Your task to perform on an android device: snooze an email in the gmail app Image 0: 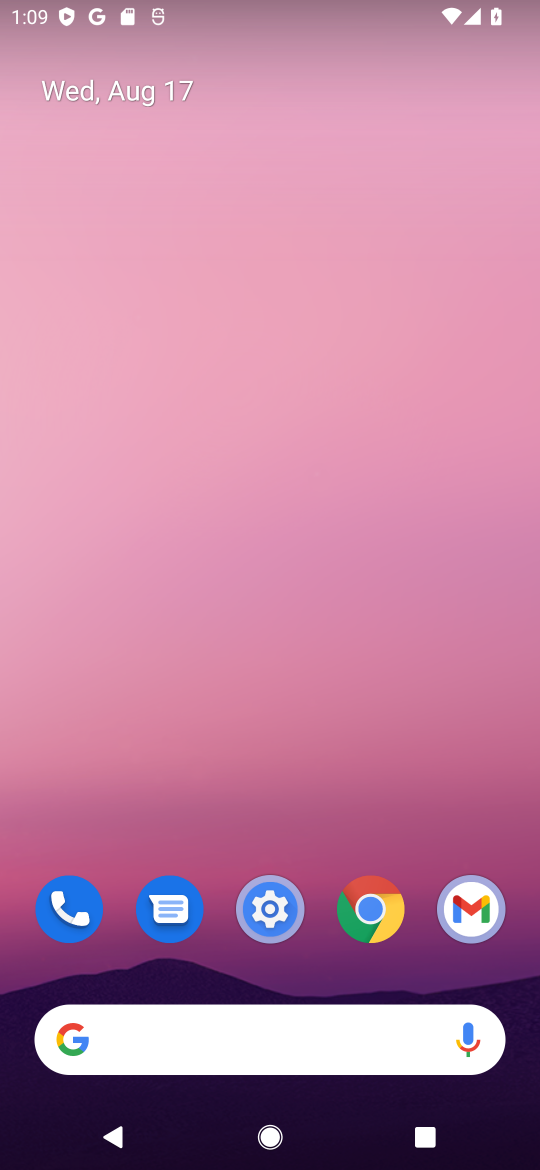
Step 0: click (465, 910)
Your task to perform on an android device: snooze an email in the gmail app Image 1: 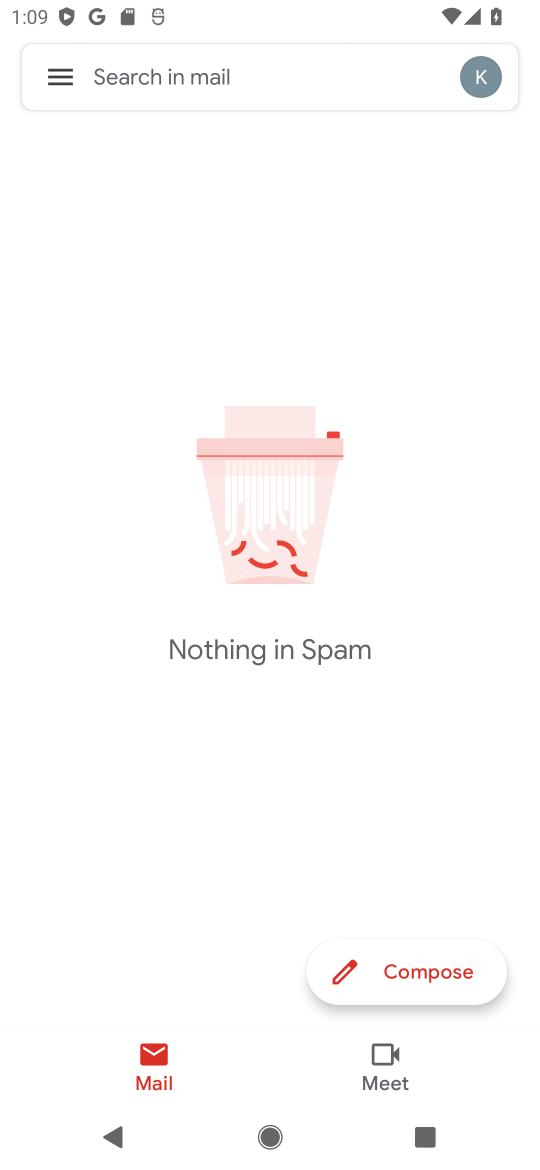
Step 1: click (59, 69)
Your task to perform on an android device: snooze an email in the gmail app Image 2: 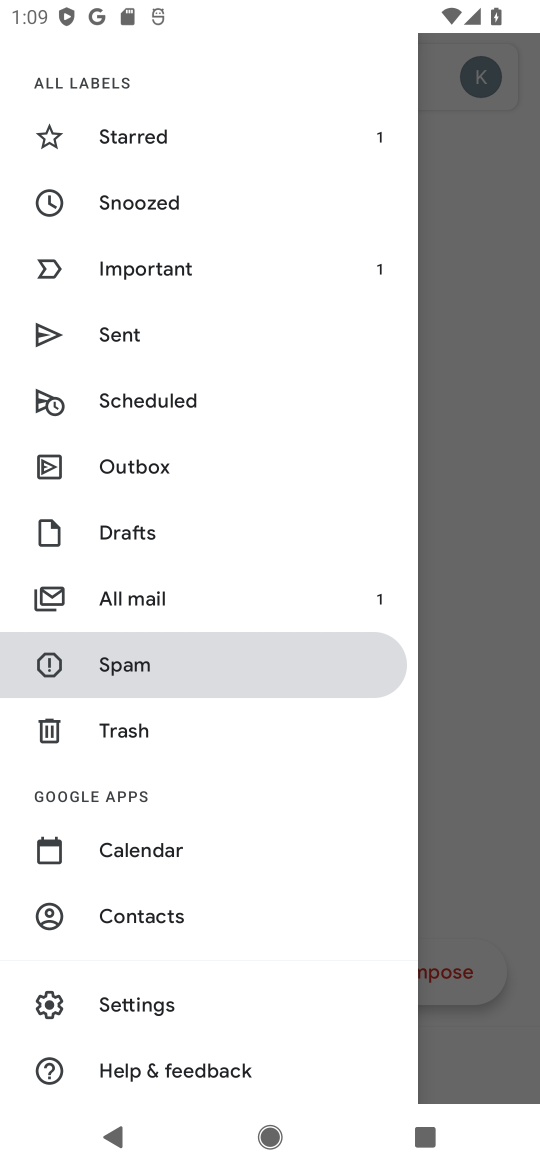
Step 2: click (142, 588)
Your task to perform on an android device: snooze an email in the gmail app Image 3: 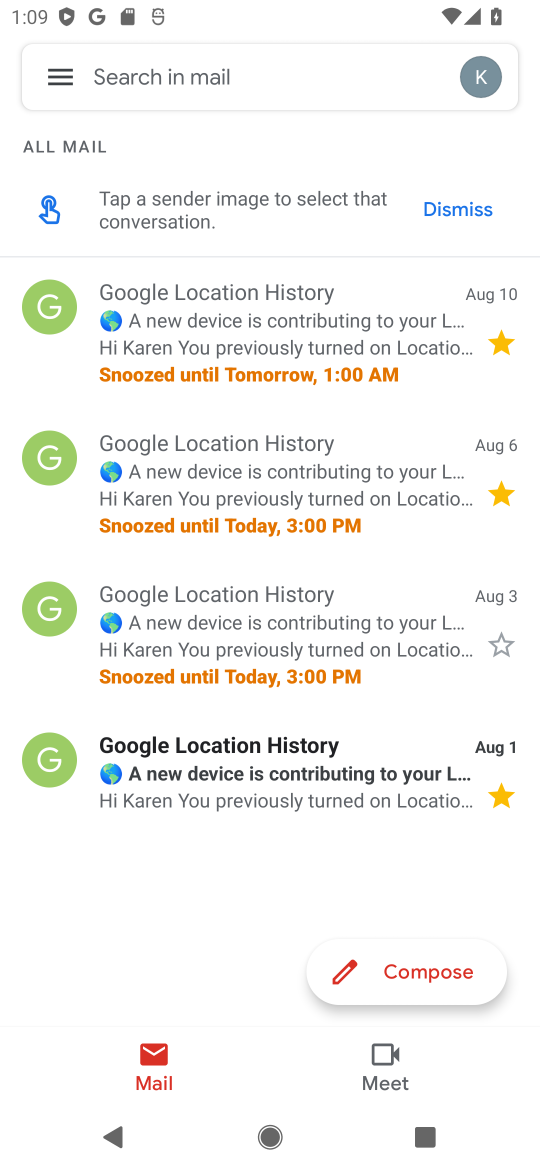
Step 3: click (247, 781)
Your task to perform on an android device: snooze an email in the gmail app Image 4: 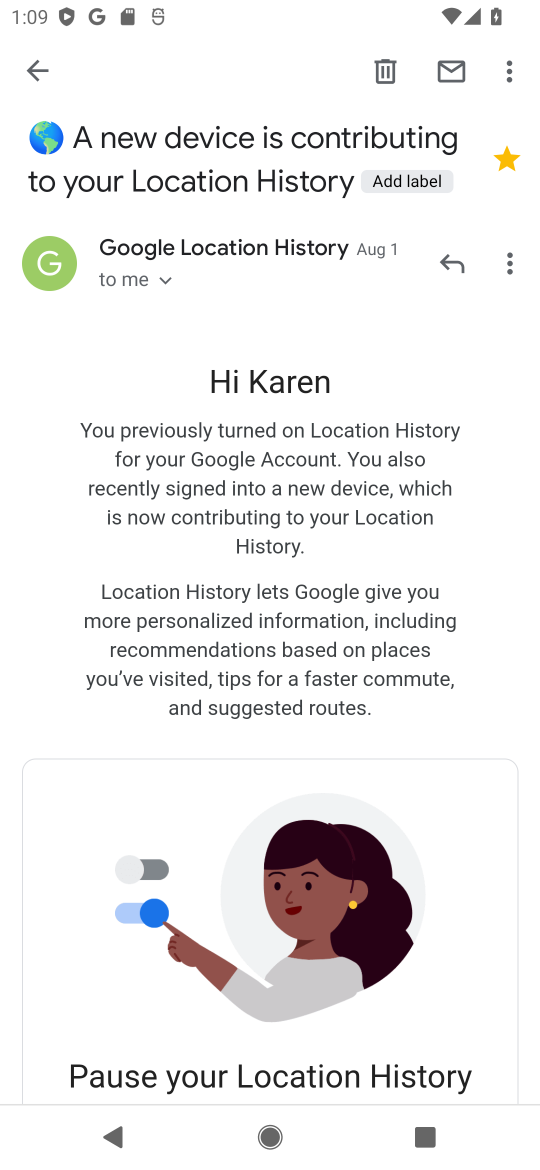
Step 4: click (504, 67)
Your task to perform on an android device: snooze an email in the gmail app Image 5: 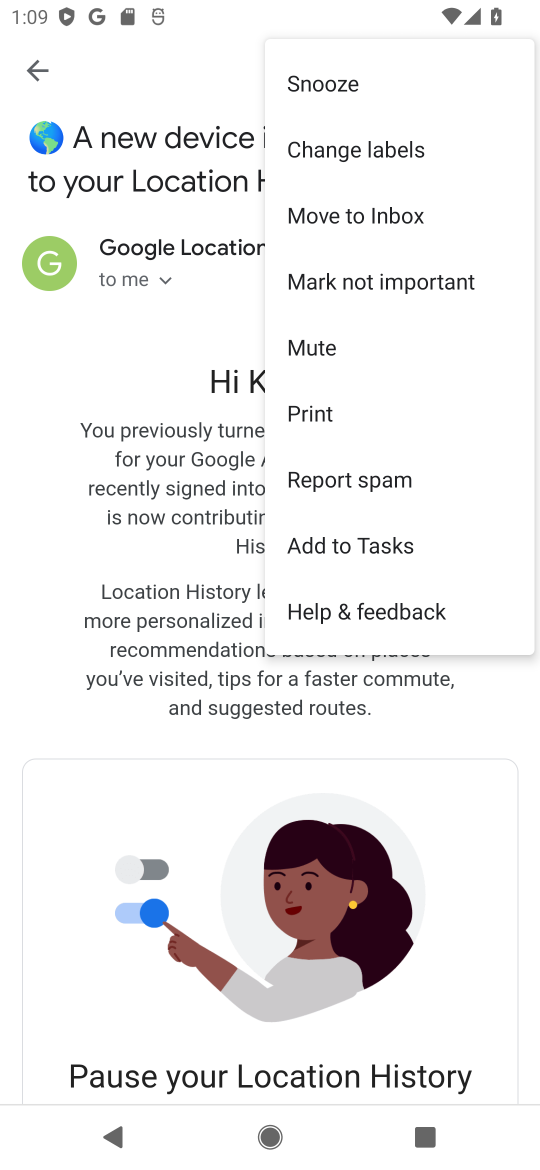
Step 5: click (327, 68)
Your task to perform on an android device: snooze an email in the gmail app Image 6: 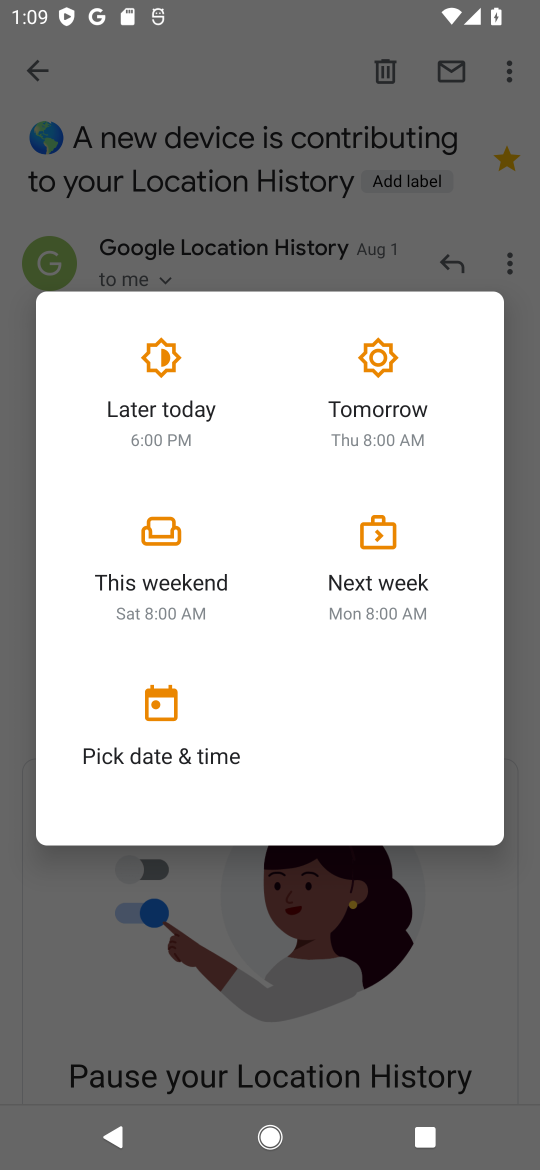
Step 6: click (170, 380)
Your task to perform on an android device: snooze an email in the gmail app Image 7: 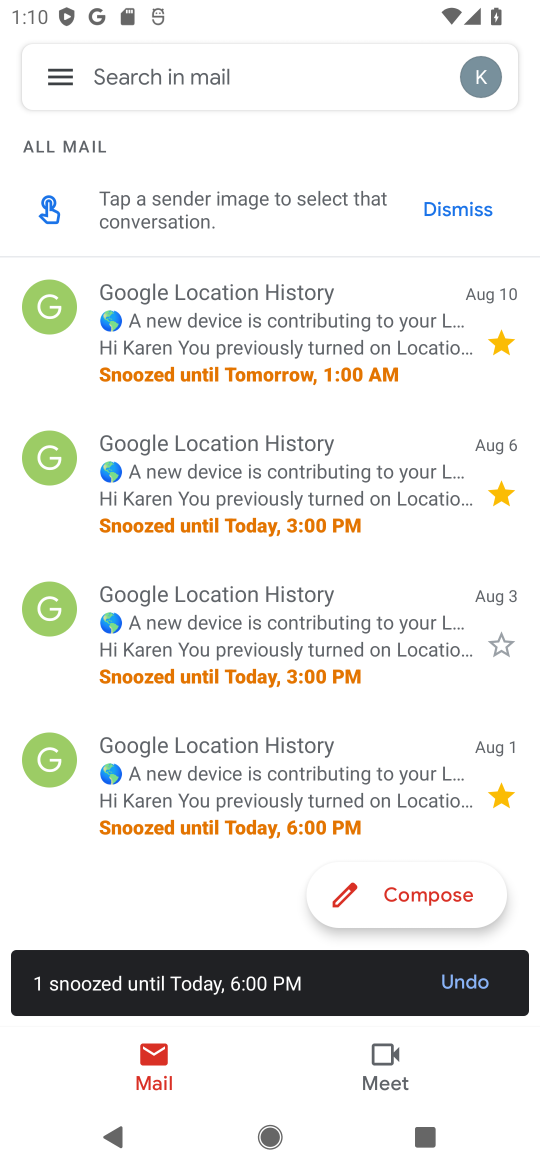
Step 7: task complete